Your task to perform on an android device: turn off javascript in the chrome app Image 0: 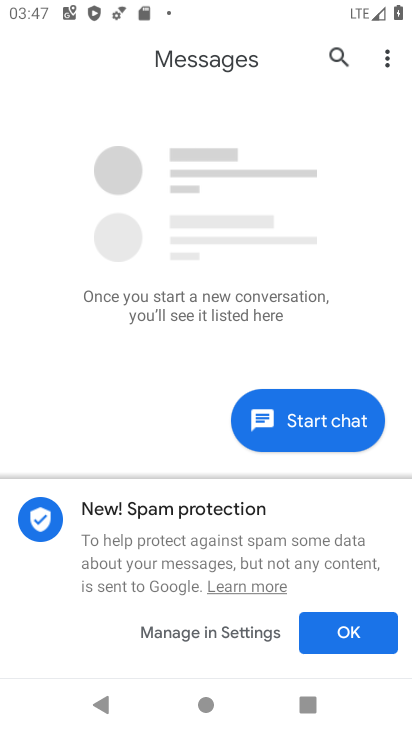
Step 0: press home button
Your task to perform on an android device: turn off javascript in the chrome app Image 1: 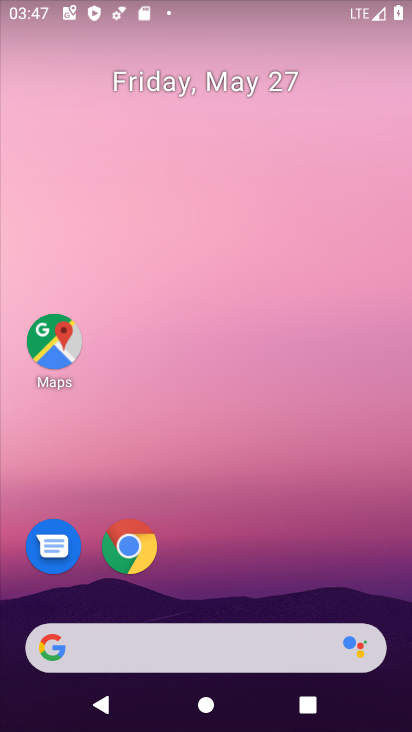
Step 1: click (119, 543)
Your task to perform on an android device: turn off javascript in the chrome app Image 2: 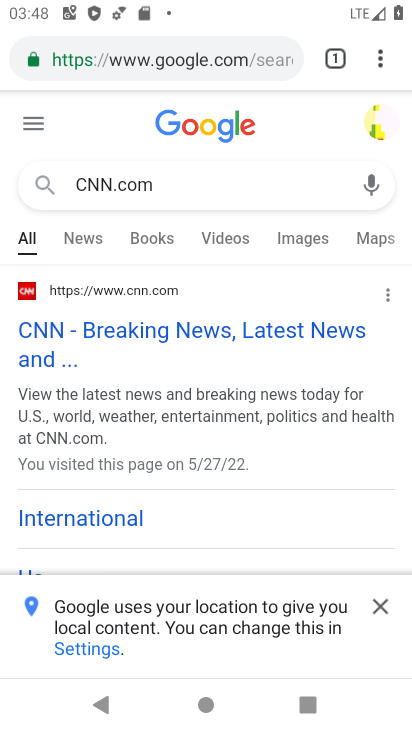
Step 2: click (381, 59)
Your task to perform on an android device: turn off javascript in the chrome app Image 3: 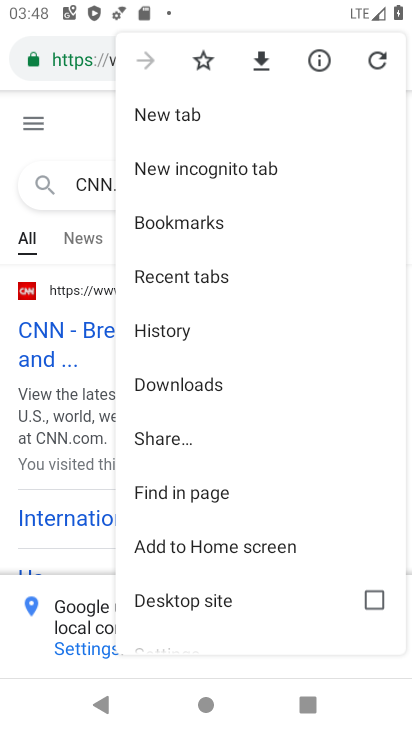
Step 3: drag from (315, 611) to (306, 212)
Your task to perform on an android device: turn off javascript in the chrome app Image 4: 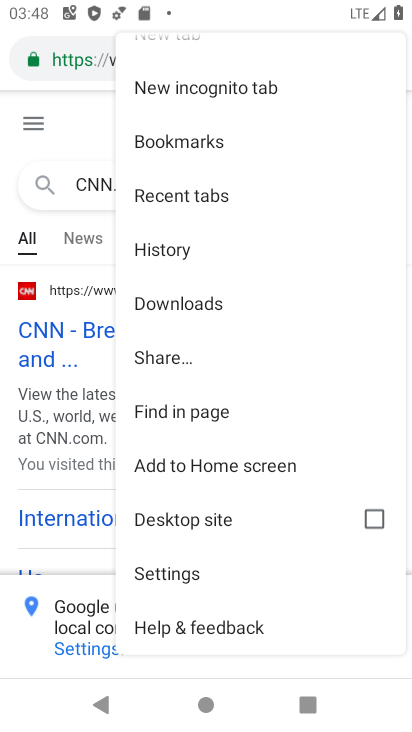
Step 4: click (179, 578)
Your task to perform on an android device: turn off javascript in the chrome app Image 5: 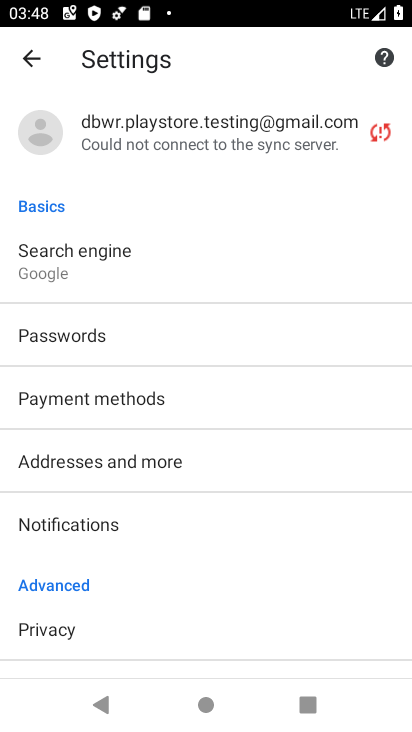
Step 5: drag from (214, 602) to (254, 400)
Your task to perform on an android device: turn off javascript in the chrome app Image 6: 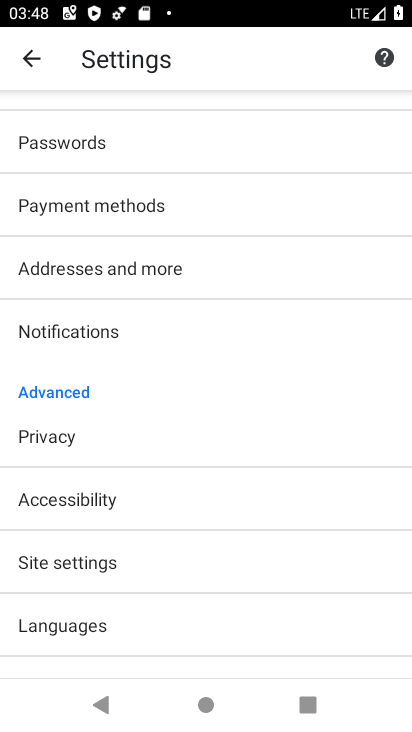
Step 6: click (72, 562)
Your task to perform on an android device: turn off javascript in the chrome app Image 7: 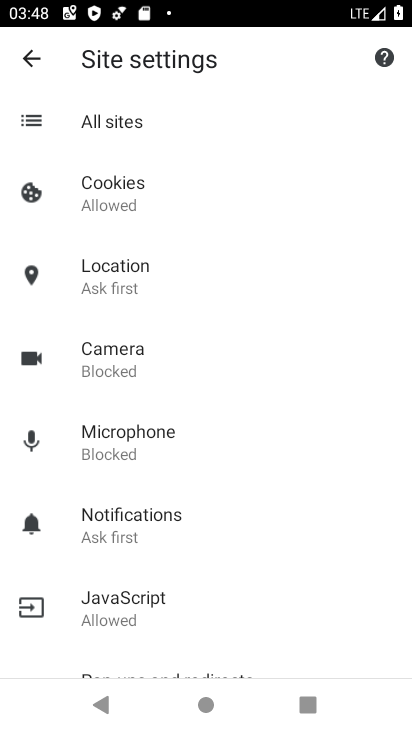
Step 7: click (138, 599)
Your task to perform on an android device: turn off javascript in the chrome app Image 8: 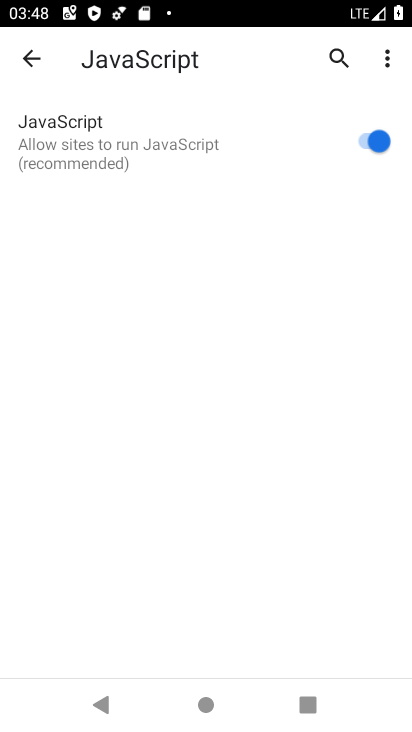
Step 8: click (362, 140)
Your task to perform on an android device: turn off javascript in the chrome app Image 9: 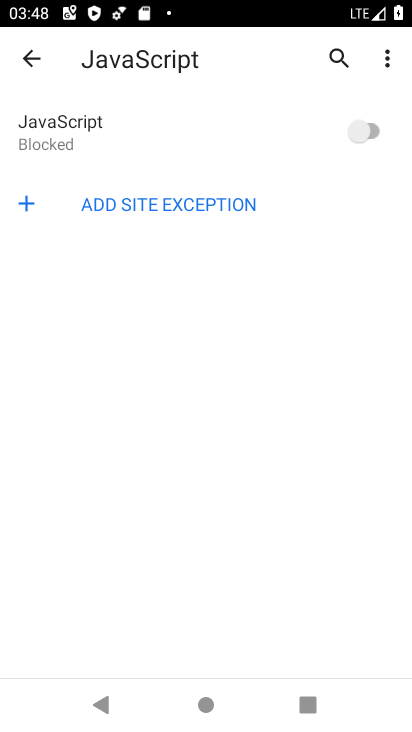
Step 9: task complete